Your task to perform on an android device: Open Youtube and go to "Your channel" Image 0: 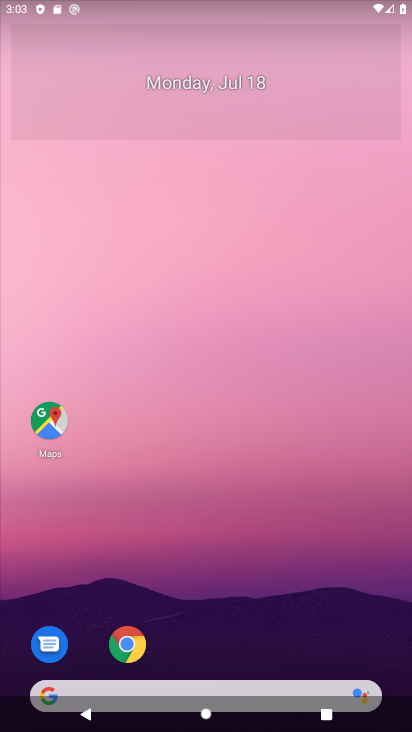
Step 0: press home button
Your task to perform on an android device: Open Youtube and go to "Your channel" Image 1: 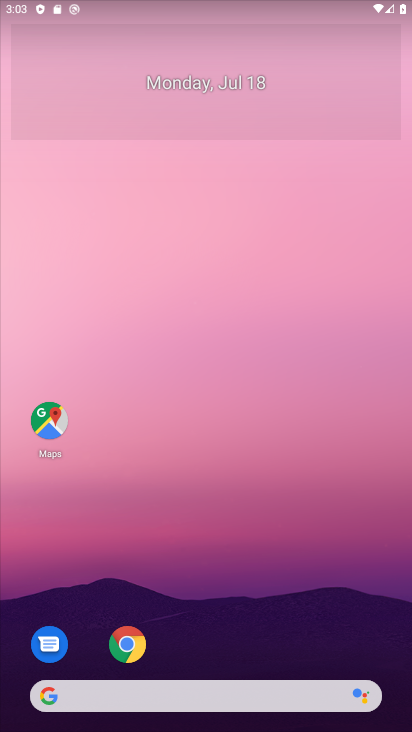
Step 1: drag from (251, 672) to (375, 33)
Your task to perform on an android device: Open Youtube and go to "Your channel" Image 2: 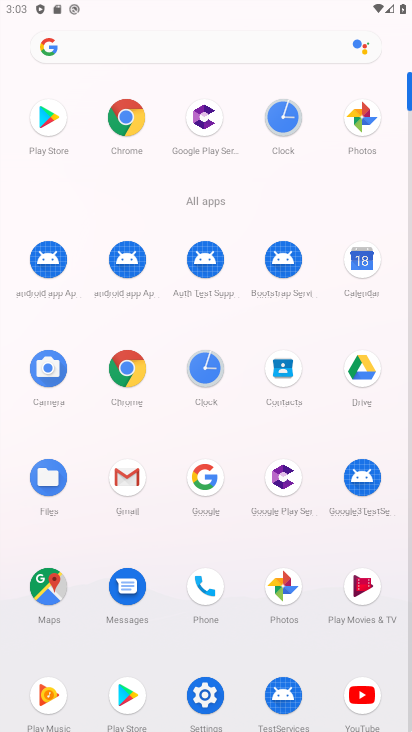
Step 2: click (362, 703)
Your task to perform on an android device: Open Youtube and go to "Your channel" Image 3: 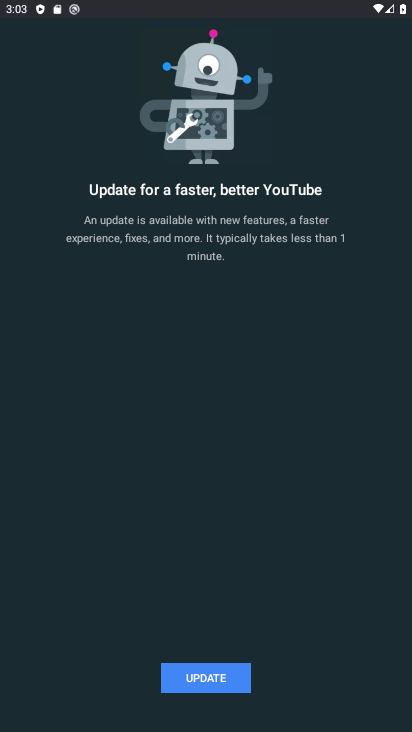
Step 3: click (203, 669)
Your task to perform on an android device: Open Youtube and go to "Your channel" Image 4: 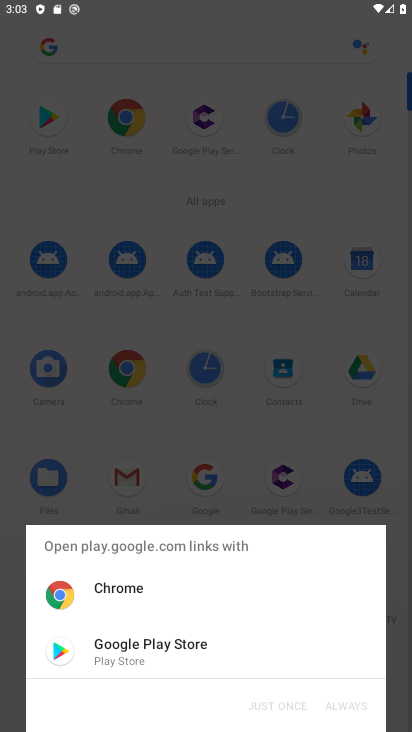
Step 4: click (116, 655)
Your task to perform on an android device: Open Youtube and go to "Your channel" Image 5: 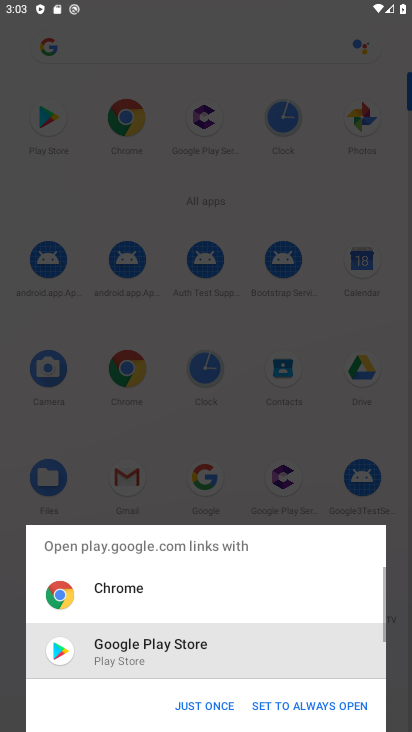
Step 5: click (211, 709)
Your task to perform on an android device: Open Youtube and go to "Your channel" Image 6: 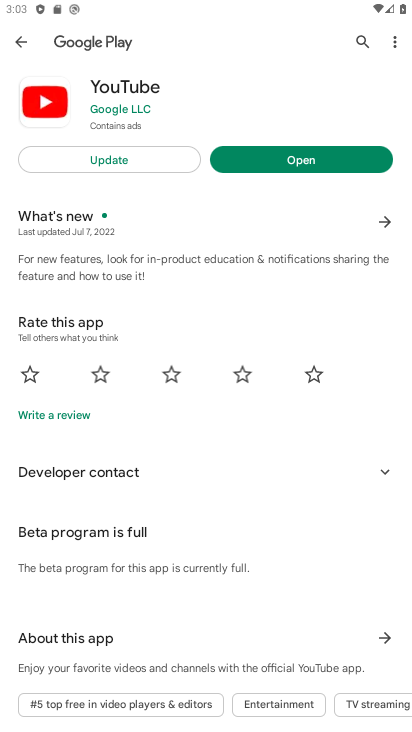
Step 6: click (170, 152)
Your task to perform on an android device: Open Youtube and go to "Your channel" Image 7: 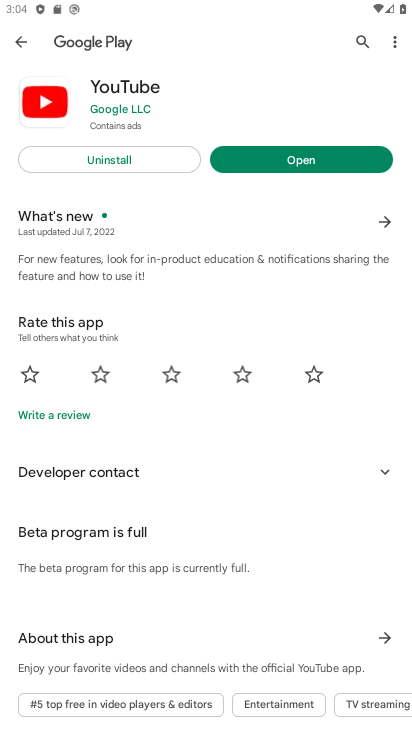
Step 7: click (250, 159)
Your task to perform on an android device: Open Youtube and go to "Your channel" Image 8: 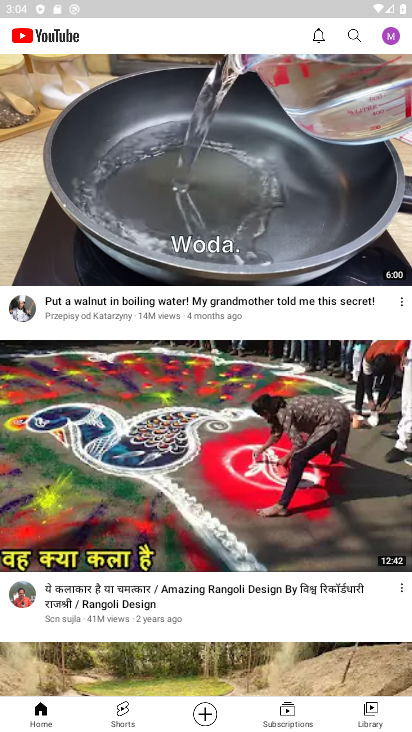
Step 8: click (391, 32)
Your task to perform on an android device: Open Youtube and go to "Your channel" Image 9: 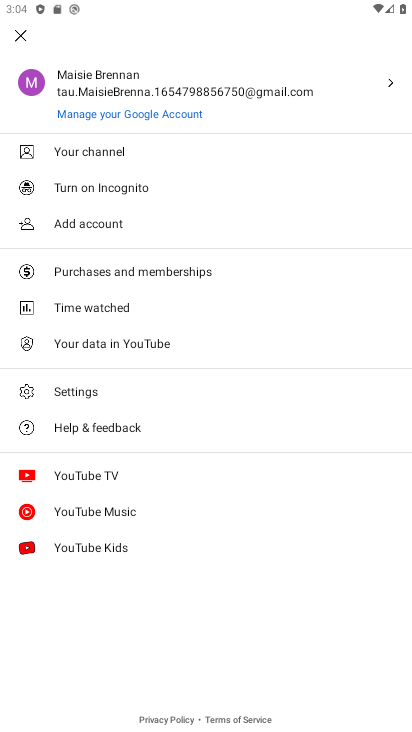
Step 9: click (94, 147)
Your task to perform on an android device: Open Youtube and go to "Your channel" Image 10: 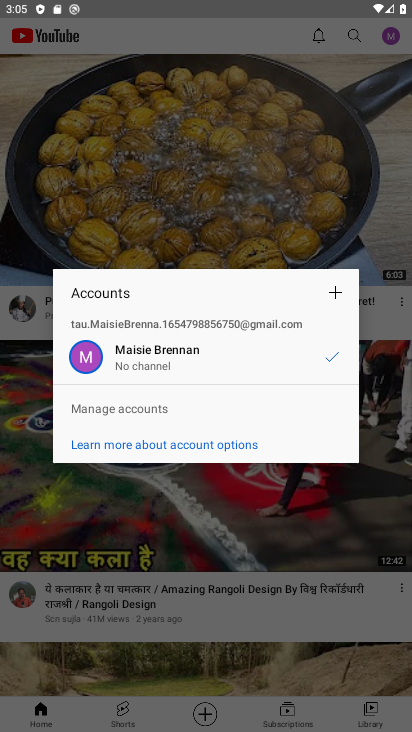
Step 10: task complete